Your task to perform on an android device: toggle show notifications on the lock screen Image 0: 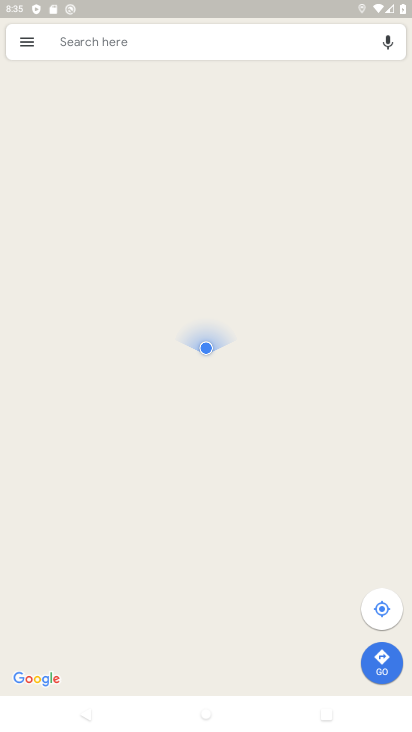
Step 0: press home button
Your task to perform on an android device: toggle show notifications on the lock screen Image 1: 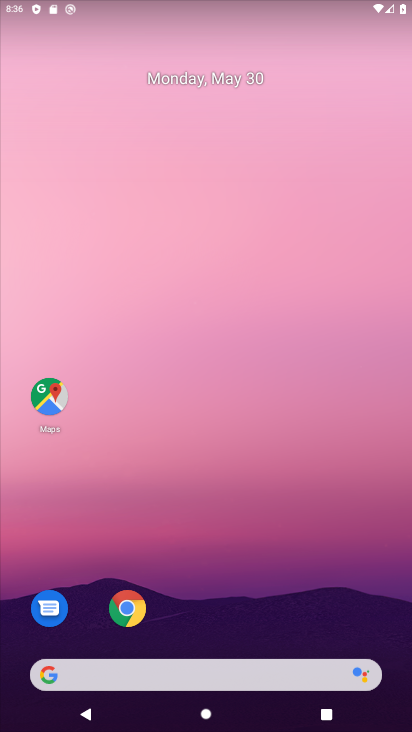
Step 1: drag from (203, 647) to (317, 152)
Your task to perform on an android device: toggle show notifications on the lock screen Image 2: 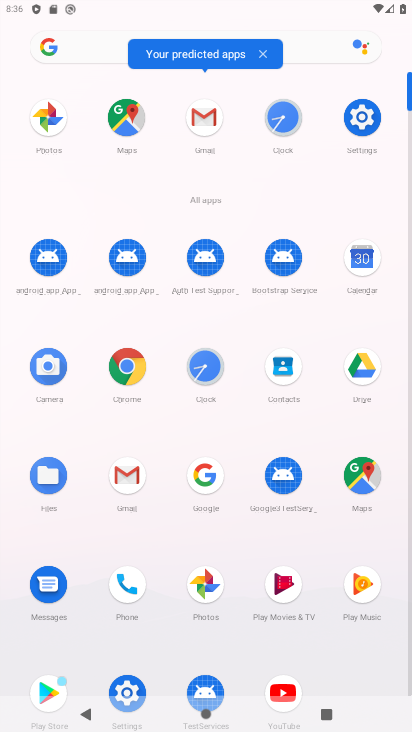
Step 2: click (133, 700)
Your task to perform on an android device: toggle show notifications on the lock screen Image 3: 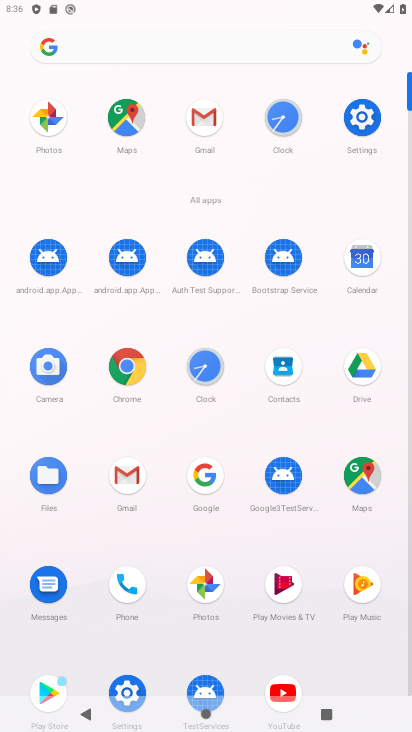
Step 3: click (124, 682)
Your task to perform on an android device: toggle show notifications on the lock screen Image 4: 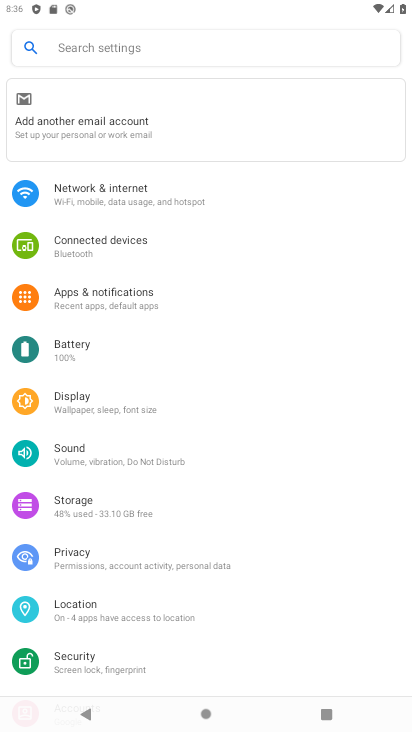
Step 4: click (150, 301)
Your task to perform on an android device: toggle show notifications on the lock screen Image 5: 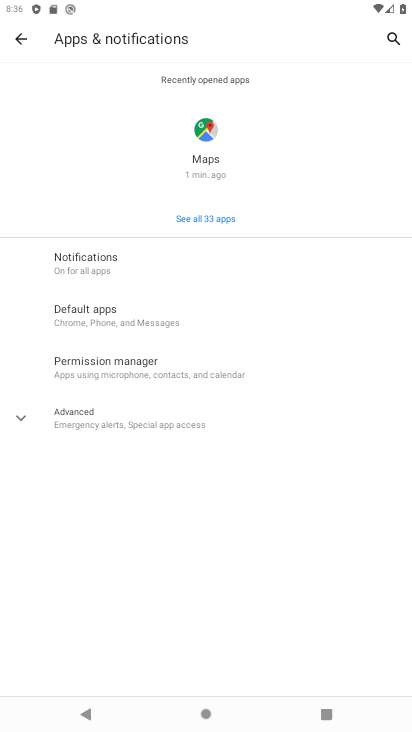
Step 5: click (177, 258)
Your task to perform on an android device: toggle show notifications on the lock screen Image 6: 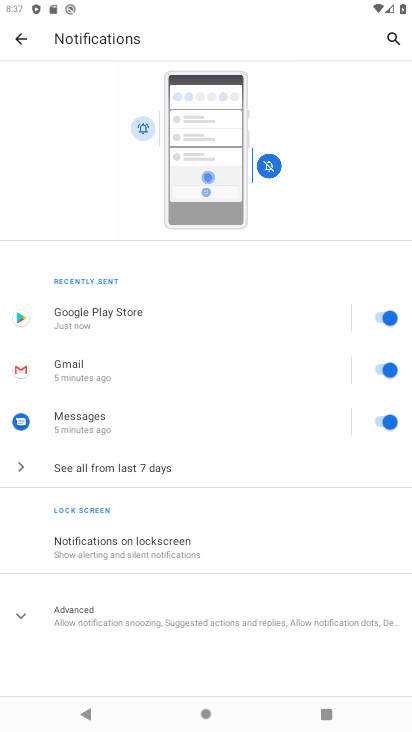
Step 6: click (202, 551)
Your task to perform on an android device: toggle show notifications on the lock screen Image 7: 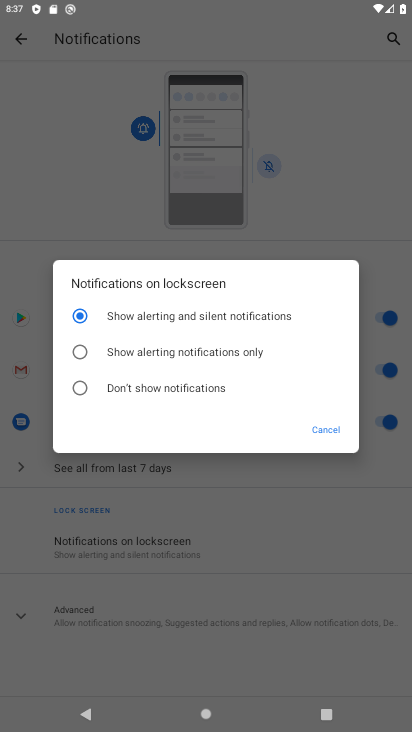
Step 7: click (179, 398)
Your task to perform on an android device: toggle show notifications on the lock screen Image 8: 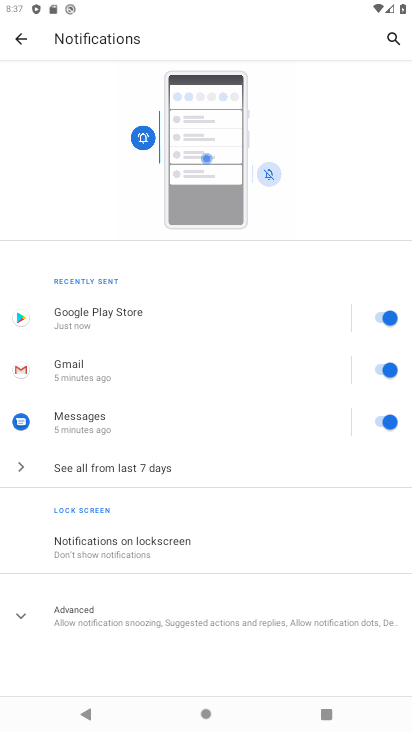
Step 8: task complete